Your task to perform on an android device: add a contact Image 0: 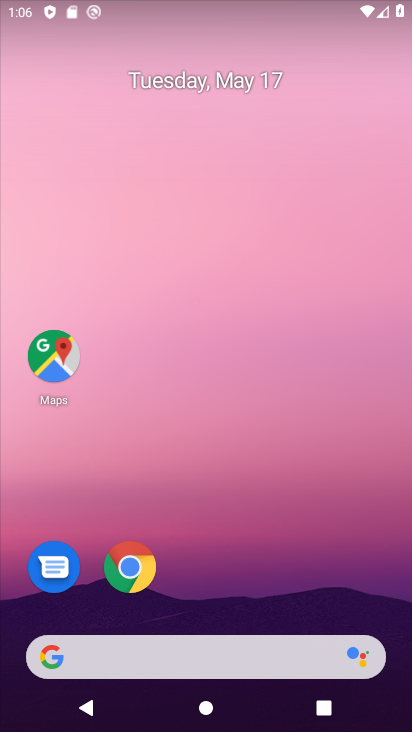
Step 0: drag from (392, 615) to (356, 152)
Your task to perform on an android device: add a contact Image 1: 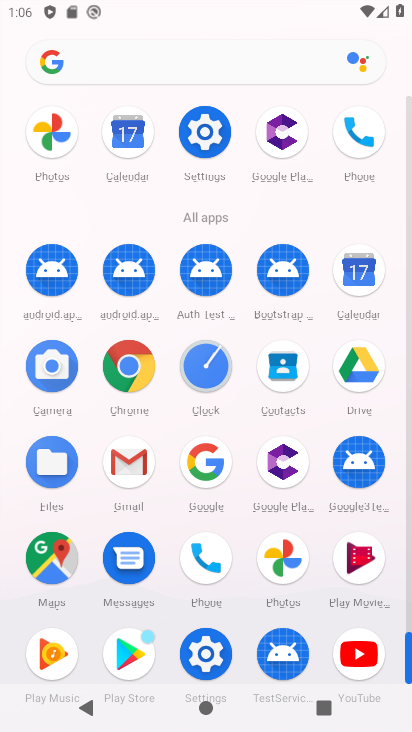
Step 1: click (276, 363)
Your task to perform on an android device: add a contact Image 2: 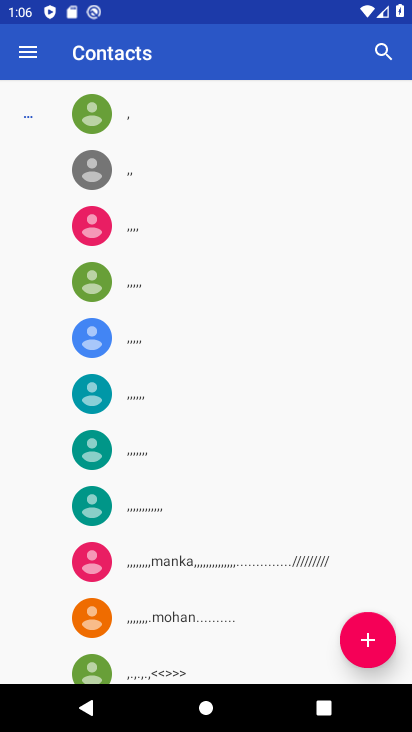
Step 2: click (368, 638)
Your task to perform on an android device: add a contact Image 3: 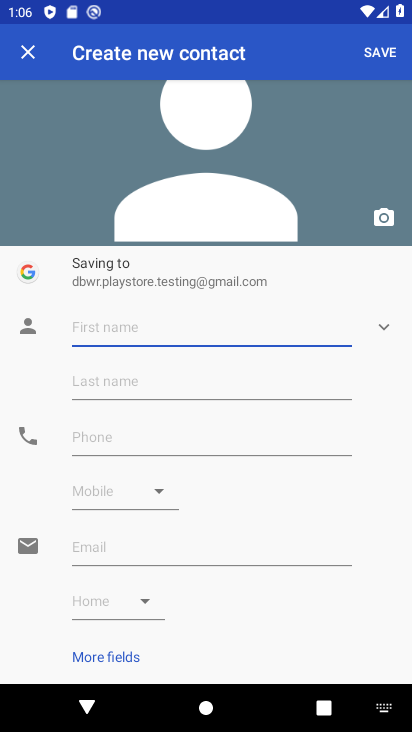
Step 3: type "ljasffghh"
Your task to perform on an android device: add a contact Image 4: 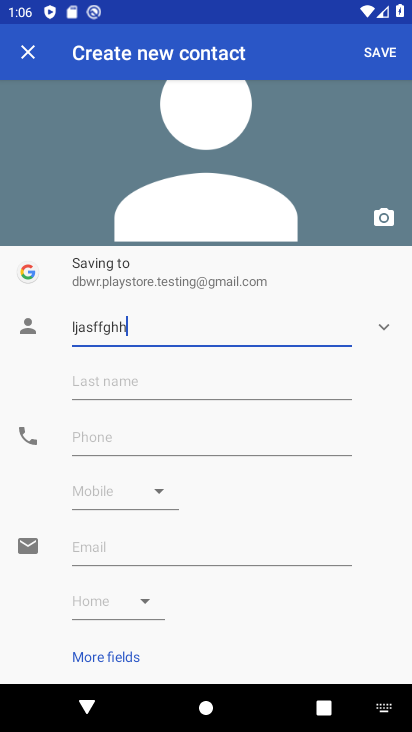
Step 4: click (156, 445)
Your task to perform on an android device: add a contact Image 5: 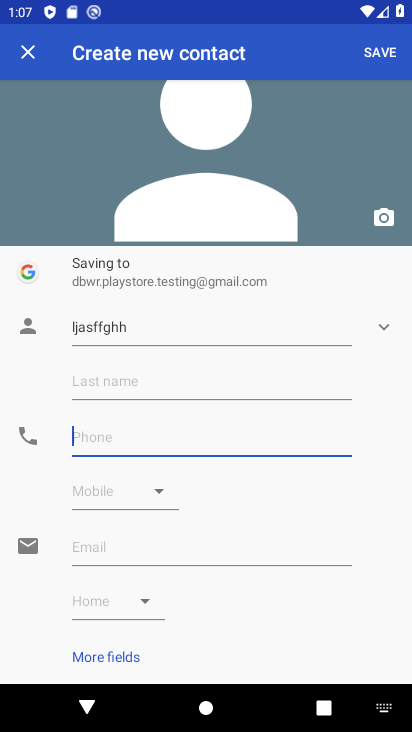
Step 5: type "90654312789"
Your task to perform on an android device: add a contact Image 6: 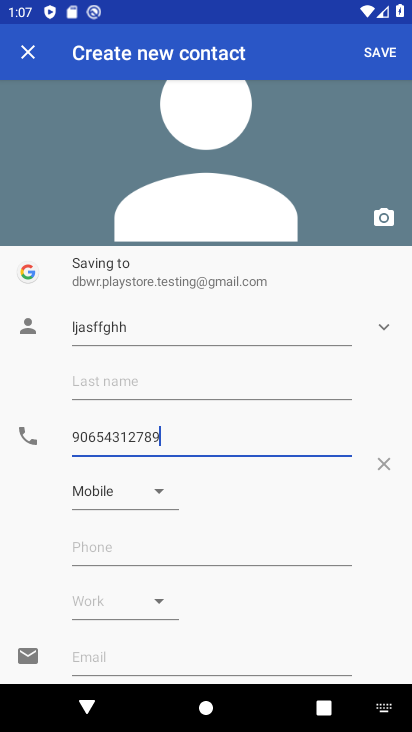
Step 6: click (162, 489)
Your task to perform on an android device: add a contact Image 7: 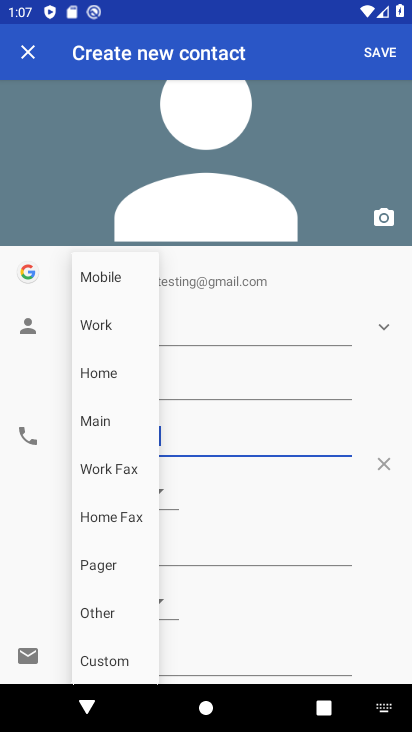
Step 7: click (97, 324)
Your task to perform on an android device: add a contact Image 8: 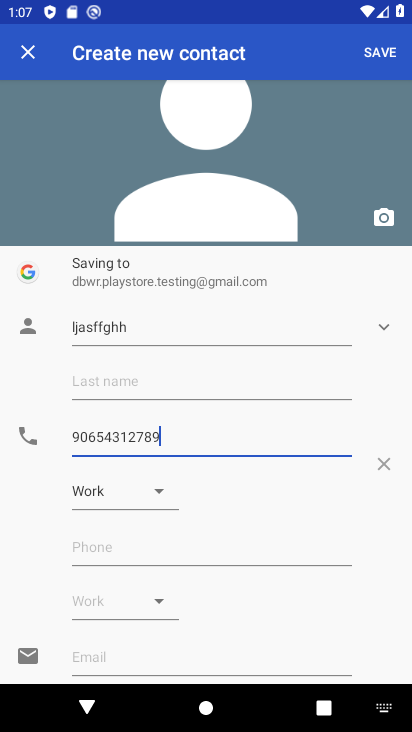
Step 8: click (384, 53)
Your task to perform on an android device: add a contact Image 9: 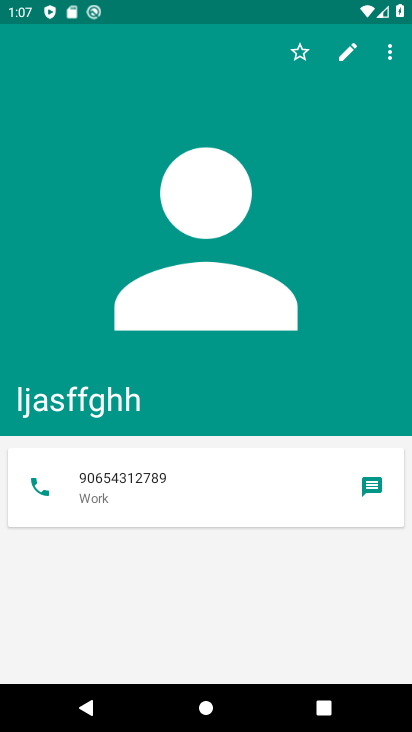
Step 9: task complete